Your task to perform on an android device: Open internet settings Image 0: 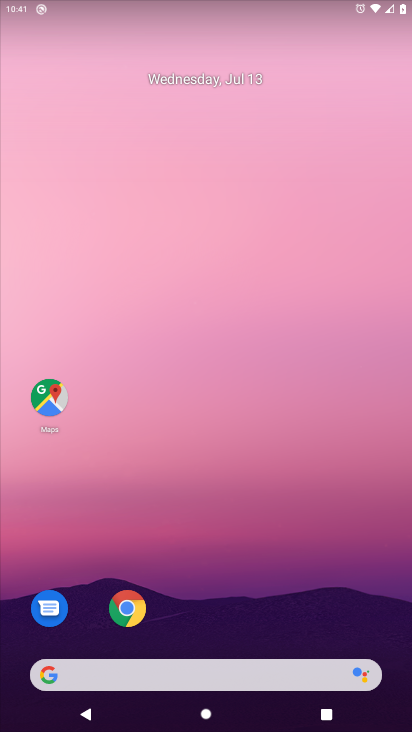
Step 0: drag from (80, 607) to (357, 7)
Your task to perform on an android device: Open internet settings Image 1: 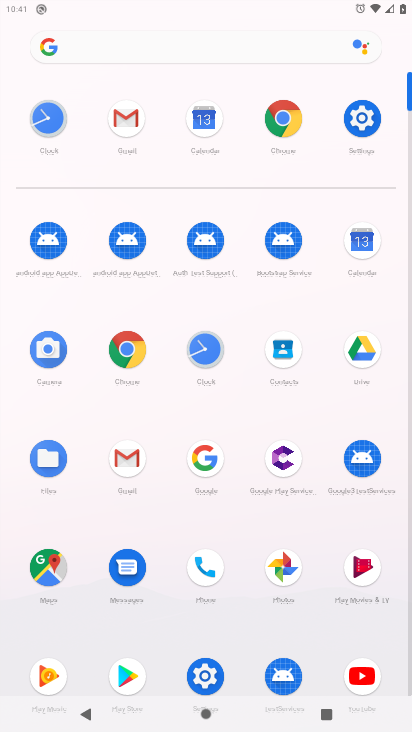
Step 1: click (205, 676)
Your task to perform on an android device: Open internet settings Image 2: 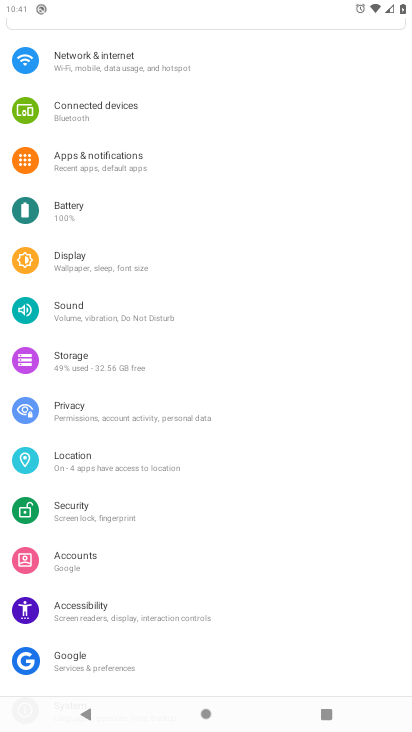
Step 2: click (132, 69)
Your task to perform on an android device: Open internet settings Image 3: 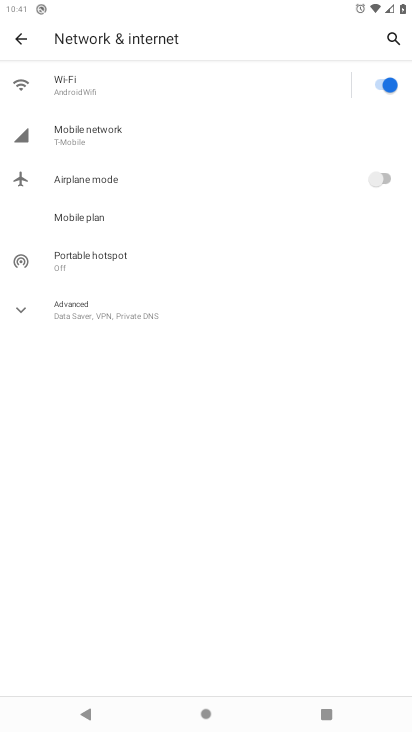
Step 3: click (102, 297)
Your task to perform on an android device: Open internet settings Image 4: 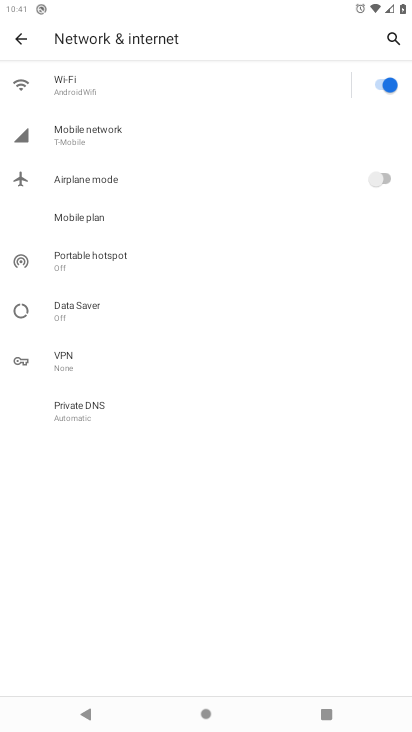
Step 4: task complete